Your task to perform on an android device: toggle wifi Image 0: 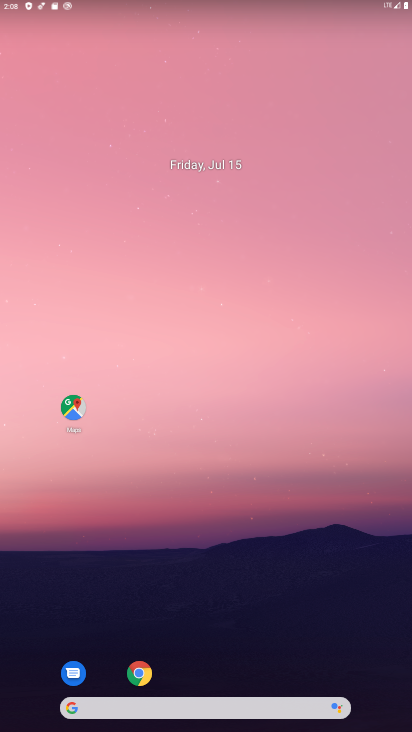
Step 0: click (173, 318)
Your task to perform on an android device: toggle wifi Image 1: 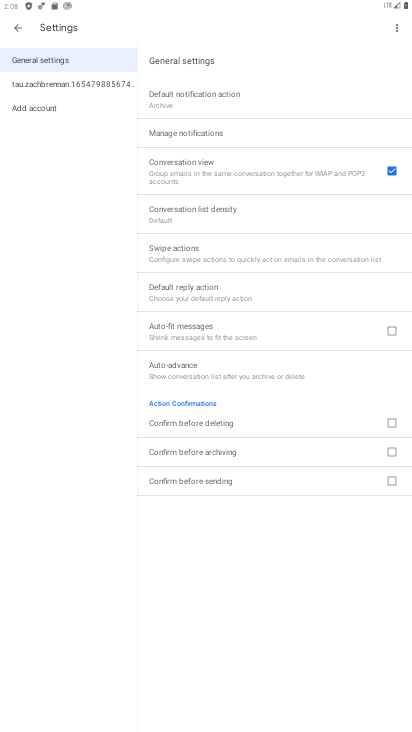
Step 1: press home button
Your task to perform on an android device: toggle wifi Image 2: 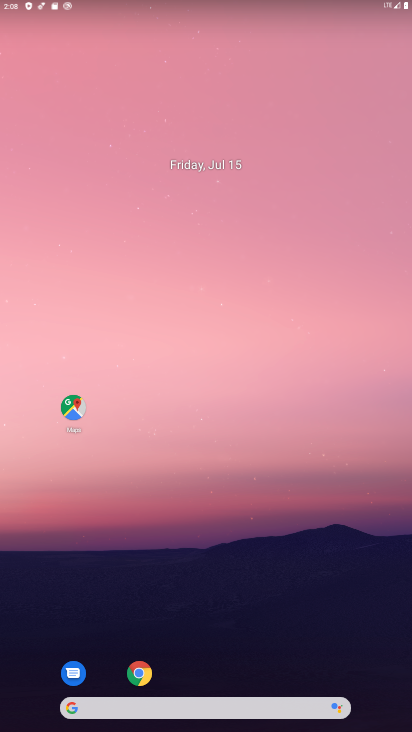
Step 2: drag from (190, 683) to (176, 312)
Your task to perform on an android device: toggle wifi Image 3: 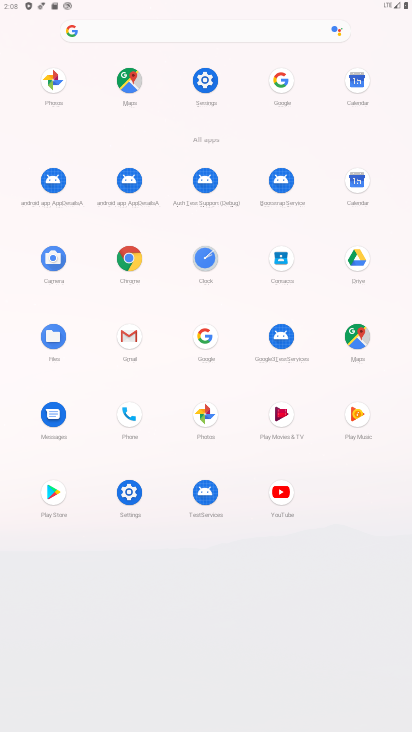
Step 3: click (193, 81)
Your task to perform on an android device: toggle wifi Image 4: 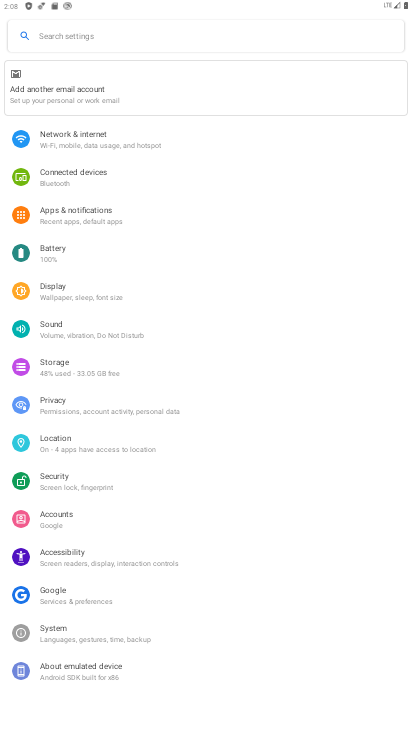
Step 4: click (71, 133)
Your task to perform on an android device: toggle wifi Image 5: 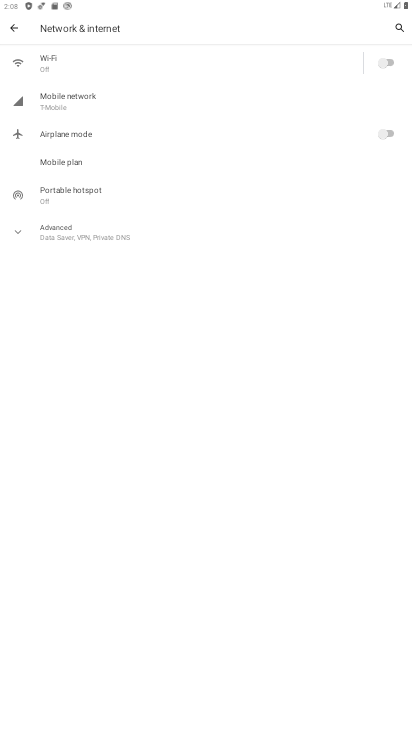
Step 5: click (391, 60)
Your task to perform on an android device: toggle wifi Image 6: 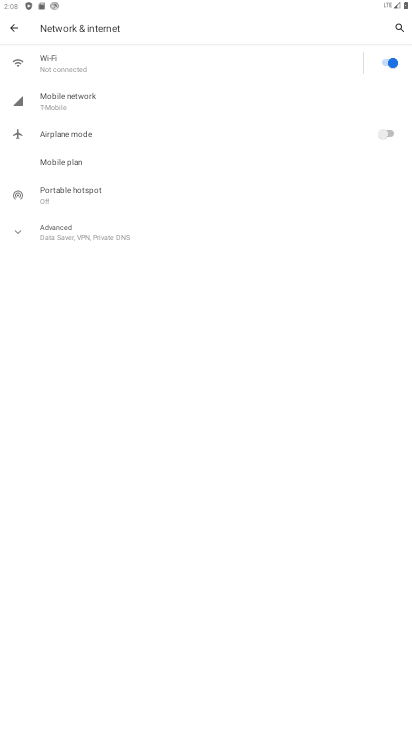
Step 6: task complete